Your task to perform on an android device: Search for the new Nintendo switch on Best Buy Image 0: 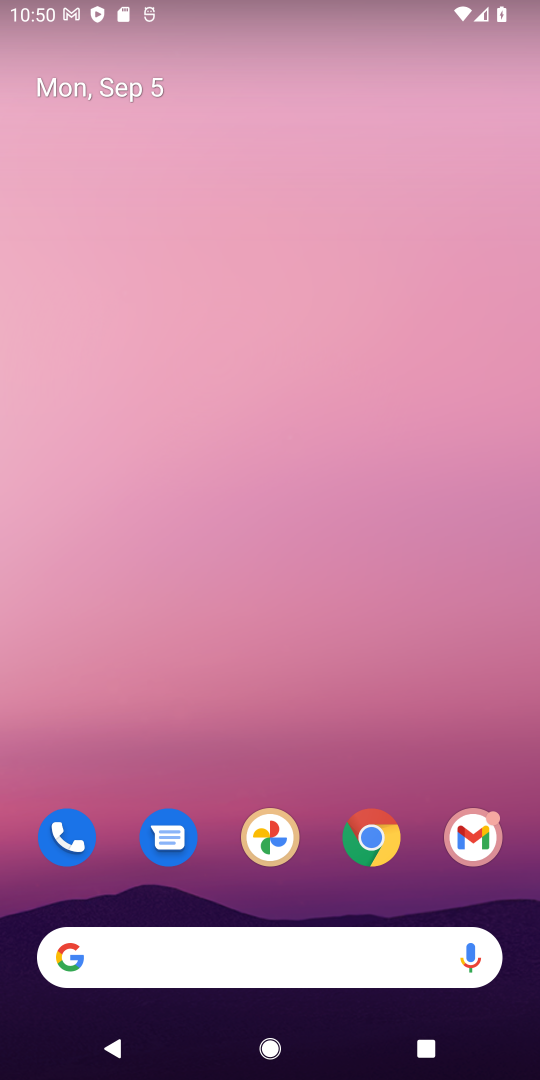
Step 0: press home button
Your task to perform on an android device: Search for the new Nintendo switch on Best Buy Image 1: 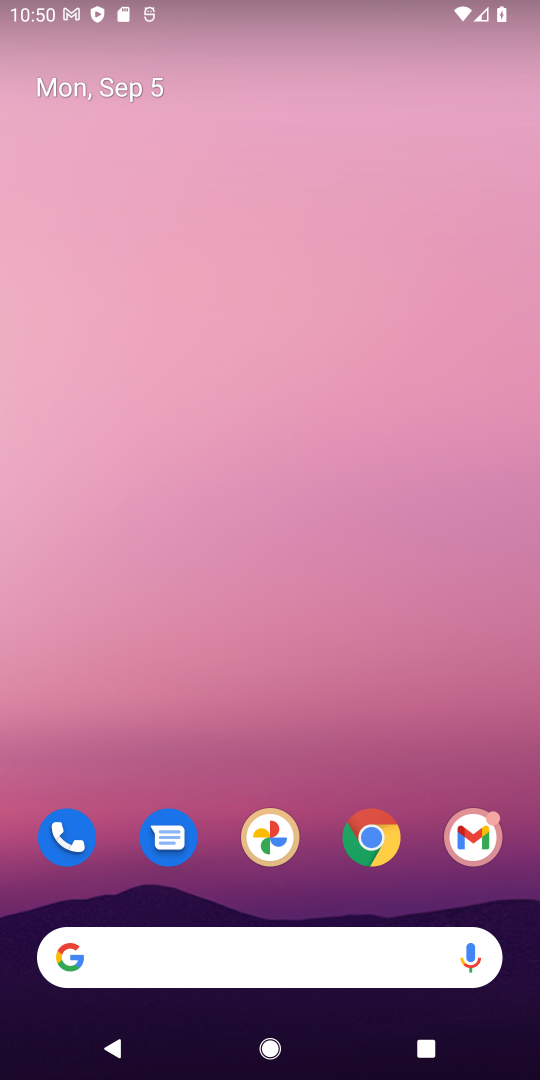
Step 1: drag from (320, 895) to (375, 0)
Your task to perform on an android device: Search for the new Nintendo switch on Best Buy Image 2: 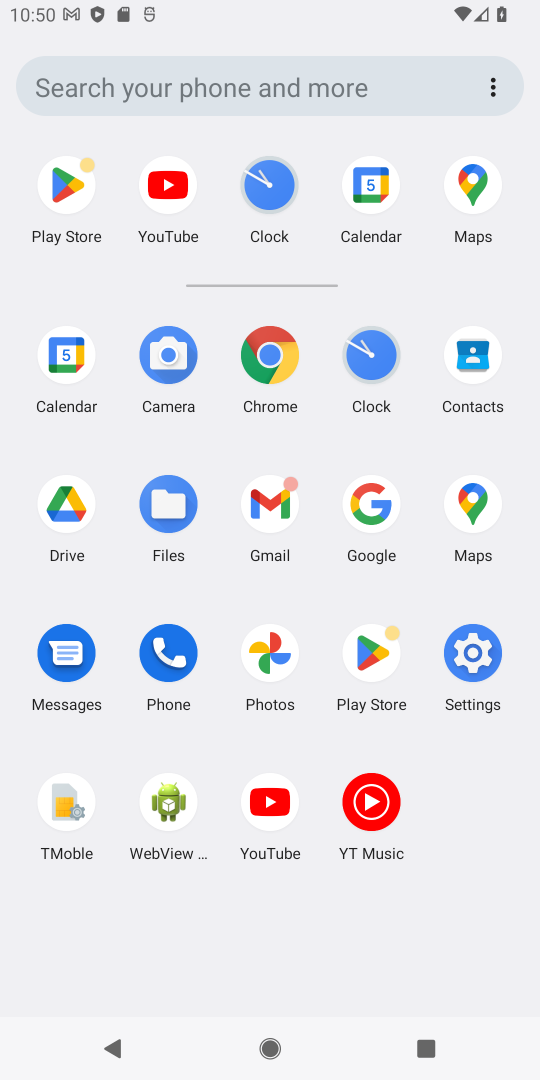
Step 2: click (259, 355)
Your task to perform on an android device: Search for the new Nintendo switch on Best Buy Image 3: 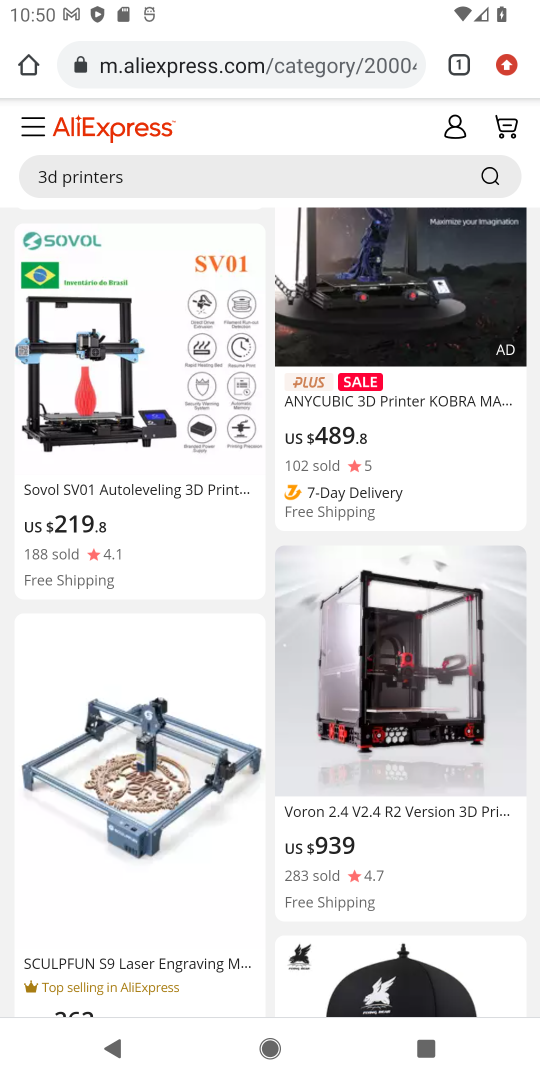
Step 3: click (186, 65)
Your task to perform on an android device: Search for the new Nintendo switch on Best Buy Image 4: 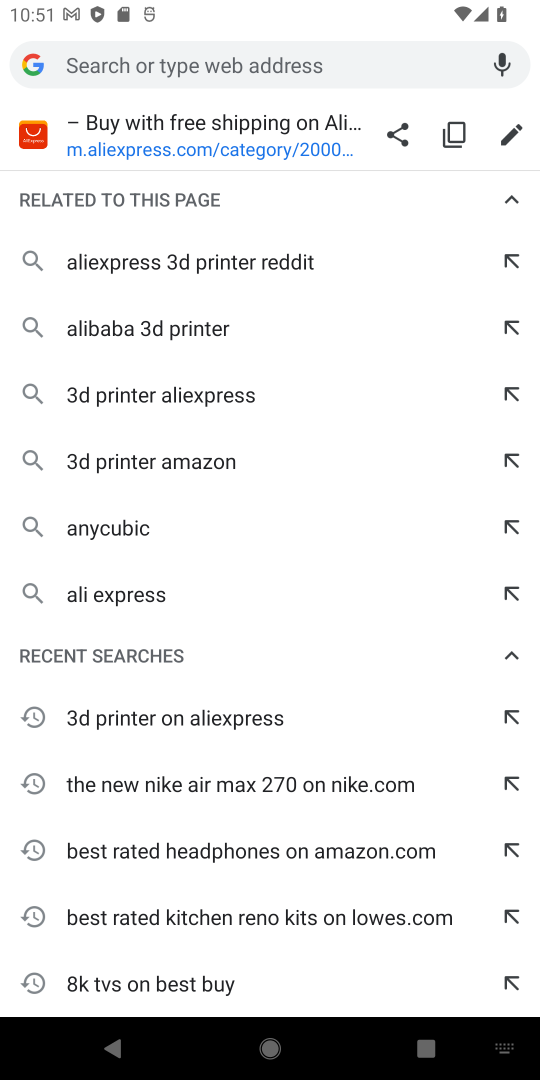
Step 4: type "Nintendo switch on Best Buy"
Your task to perform on an android device: Search for the new Nintendo switch on Best Buy Image 5: 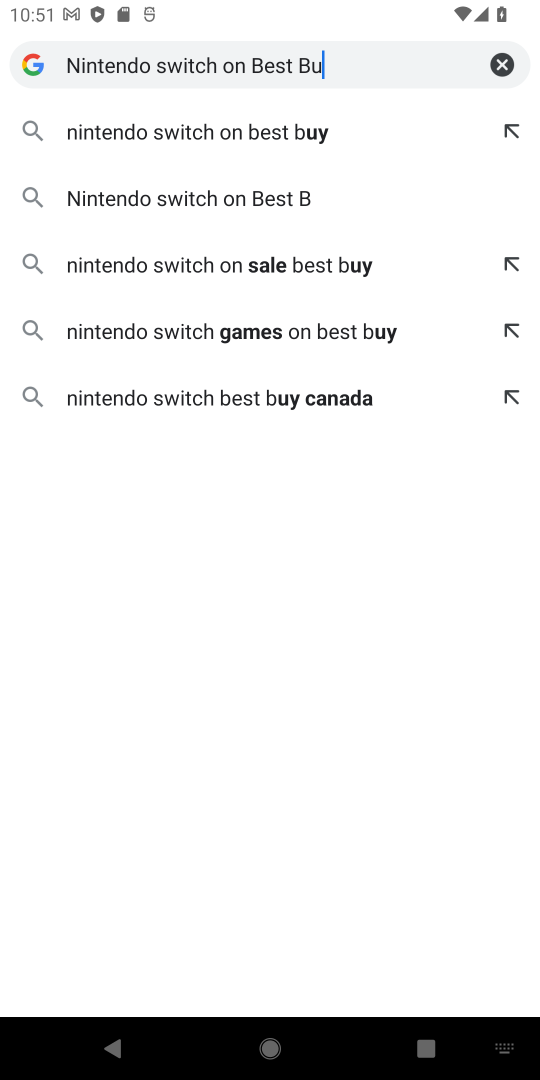
Step 5: type ""
Your task to perform on an android device: Search for the new Nintendo switch on Best Buy Image 6: 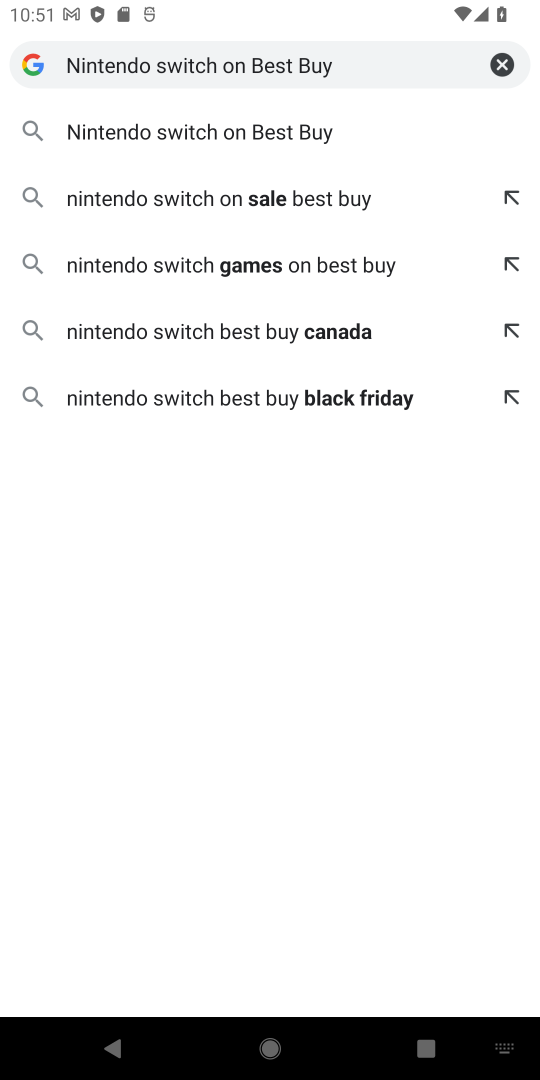
Step 6: click (245, 154)
Your task to perform on an android device: Search for the new Nintendo switch on Best Buy Image 7: 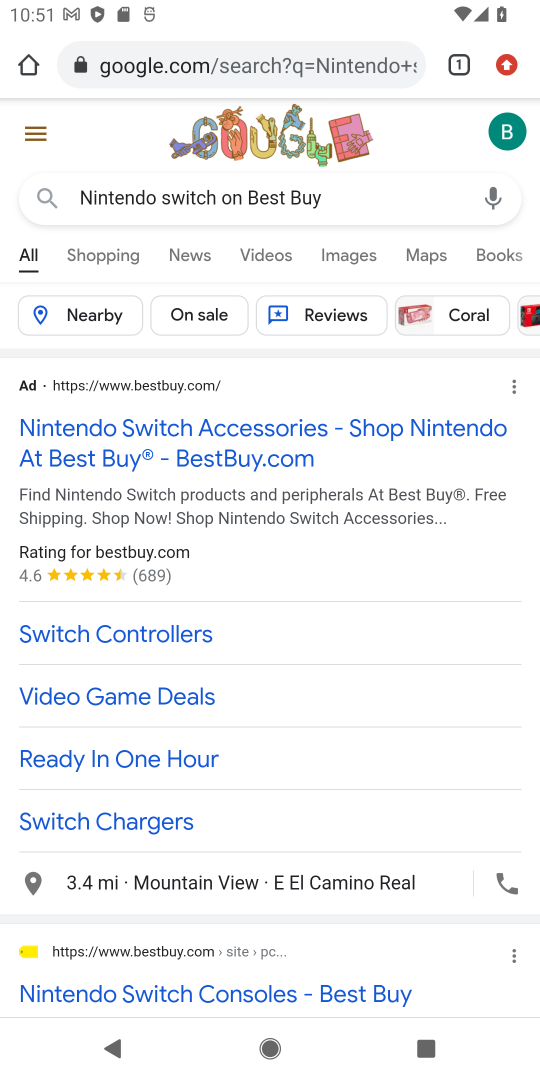
Step 7: click (213, 459)
Your task to perform on an android device: Search for the new Nintendo switch on Best Buy Image 8: 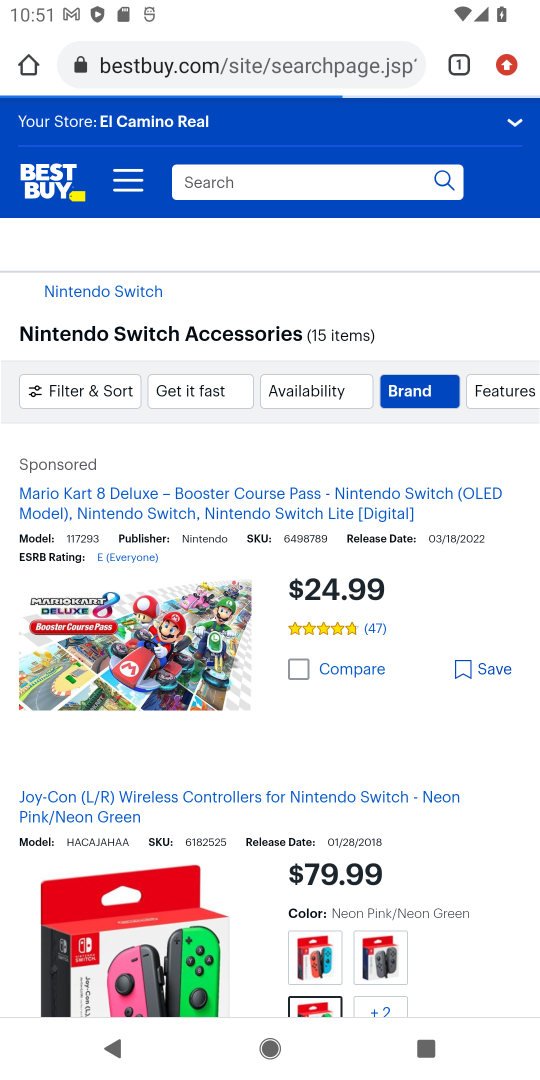
Step 8: task complete